Your task to perform on an android device: Open Reddit.com Image 0: 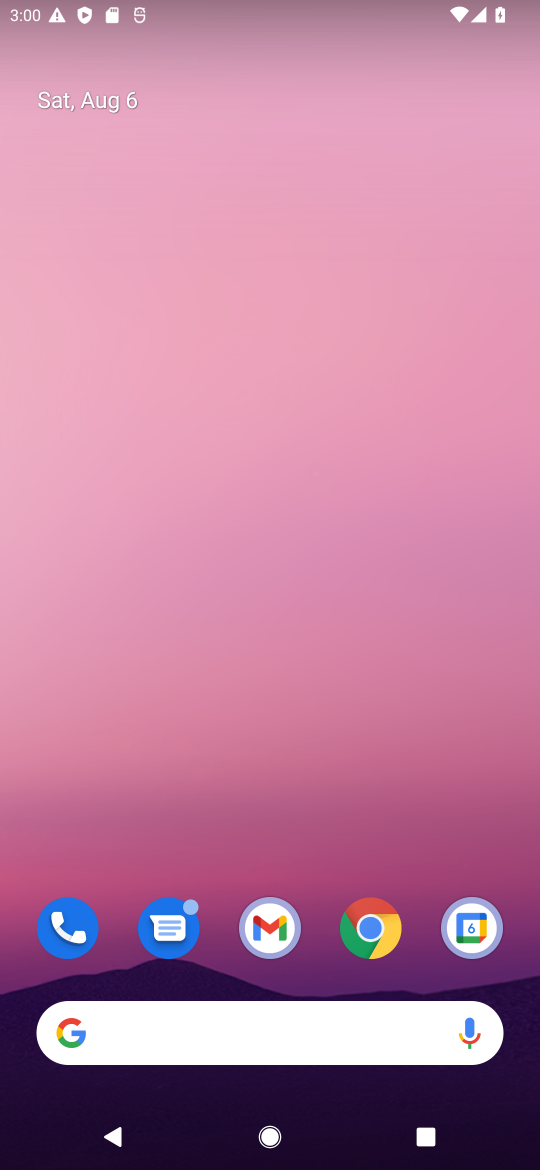
Step 0: click (364, 929)
Your task to perform on an android device: Open Reddit.com Image 1: 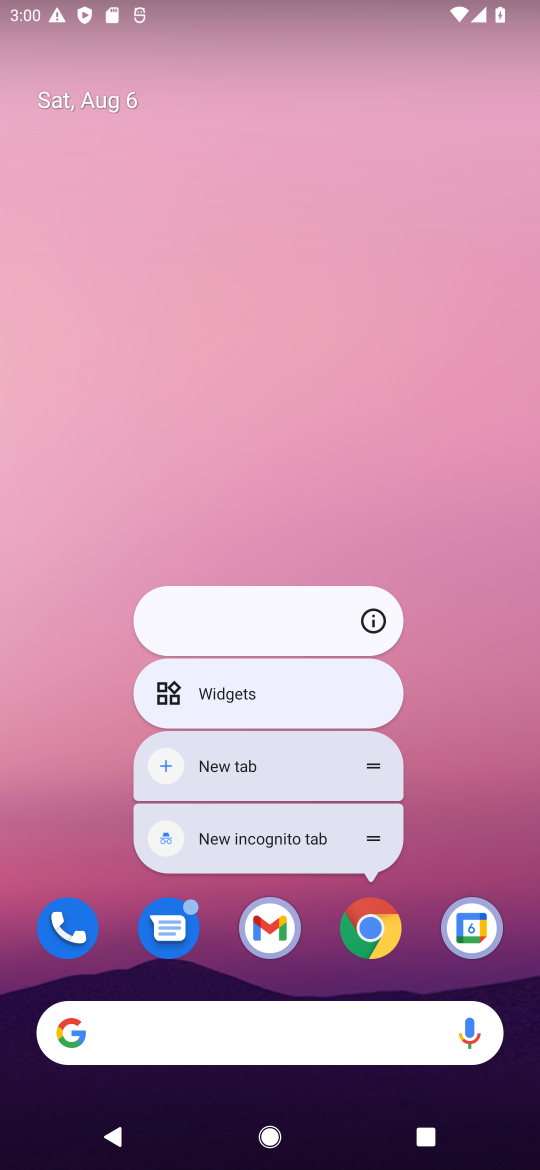
Step 1: click (357, 924)
Your task to perform on an android device: Open Reddit.com Image 2: 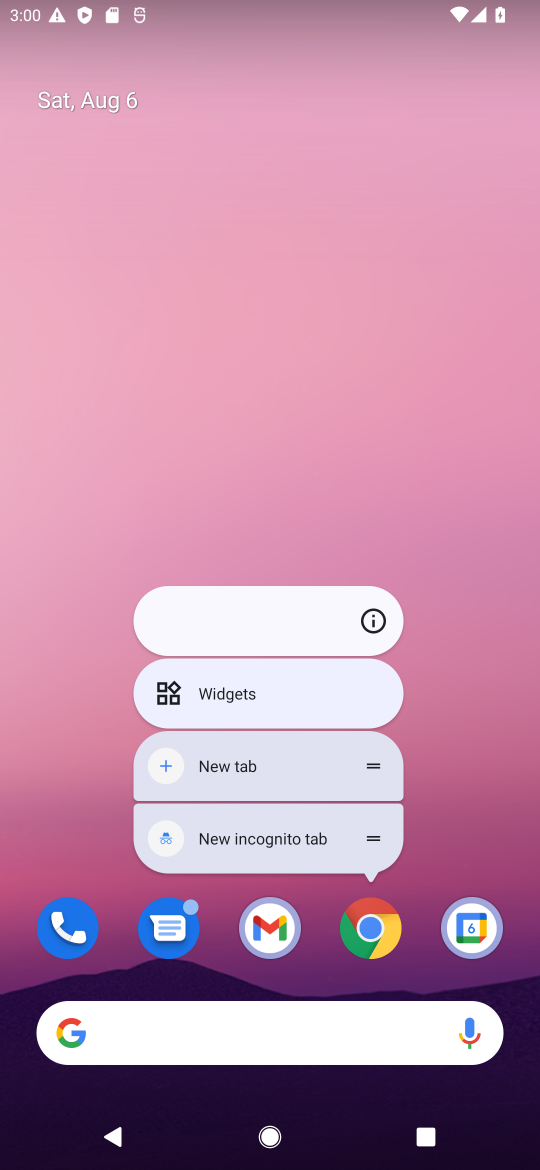
Step 2: click (357, 927)
Your task to perform on an android device: Open Reddit.com Image 3: 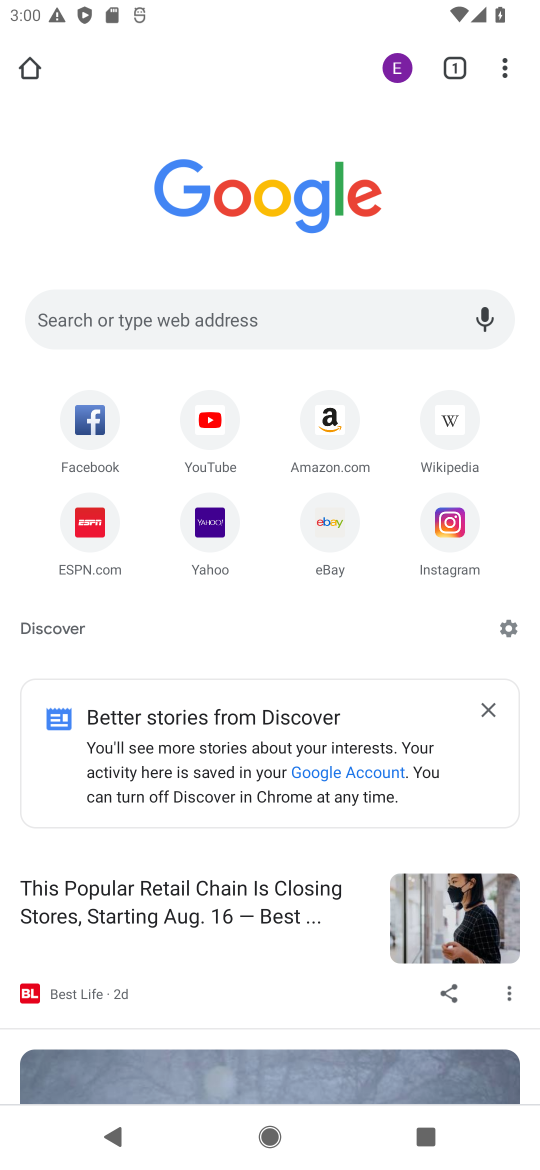
Step 3: click (383, 318)
Your task to perform on an android device: Open Reddit.com Image 4: 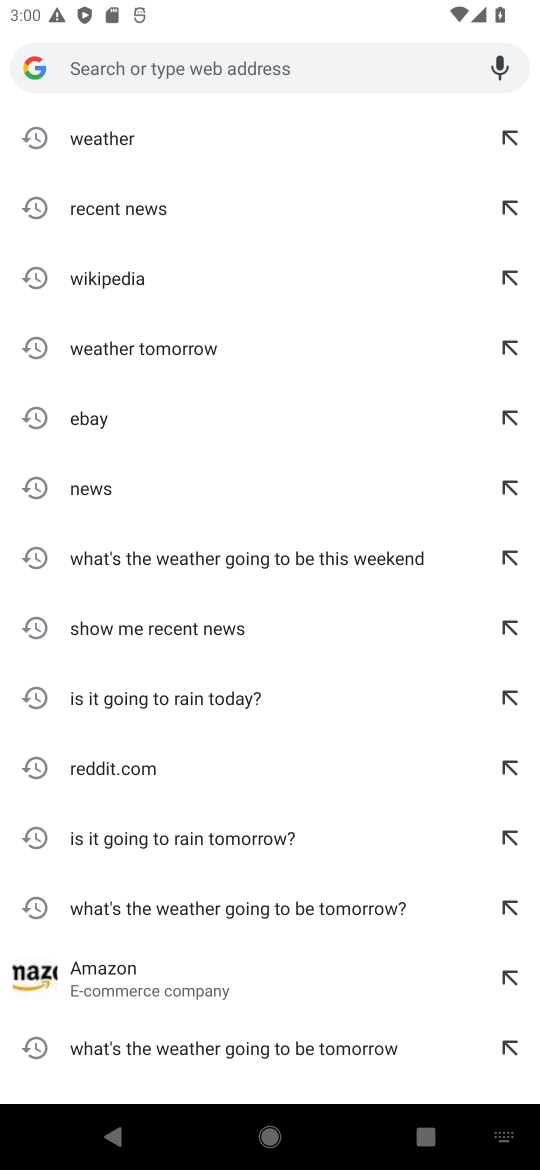
Step 4: type "reddit.com"
Your task to perform on an android device: Open Reddit.com Image 5: 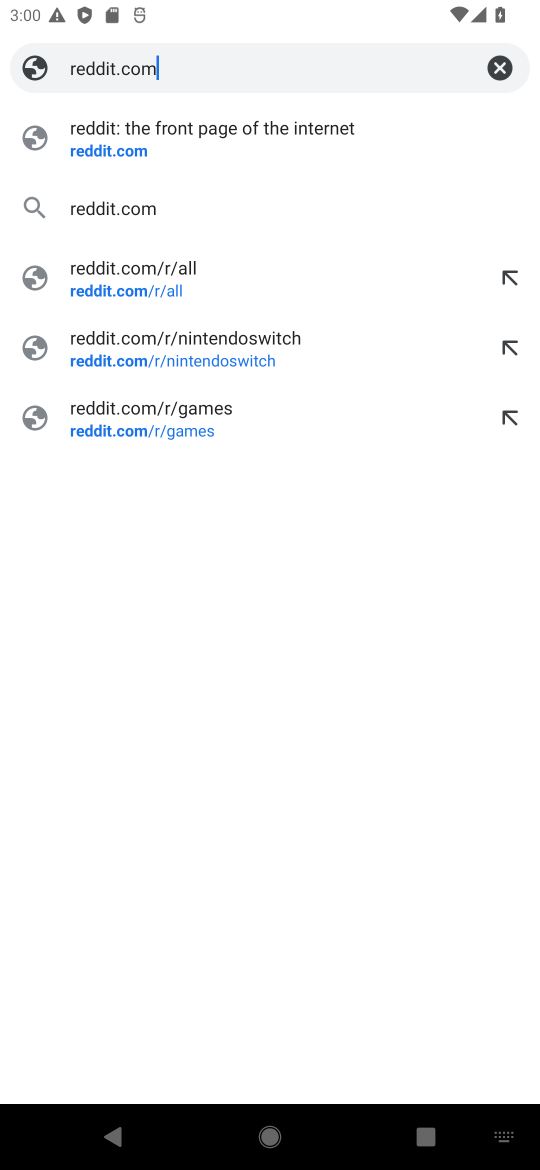
Step 5: click (366, 145)
Your task to perform on an android device: Open Reddit.com Image 6: 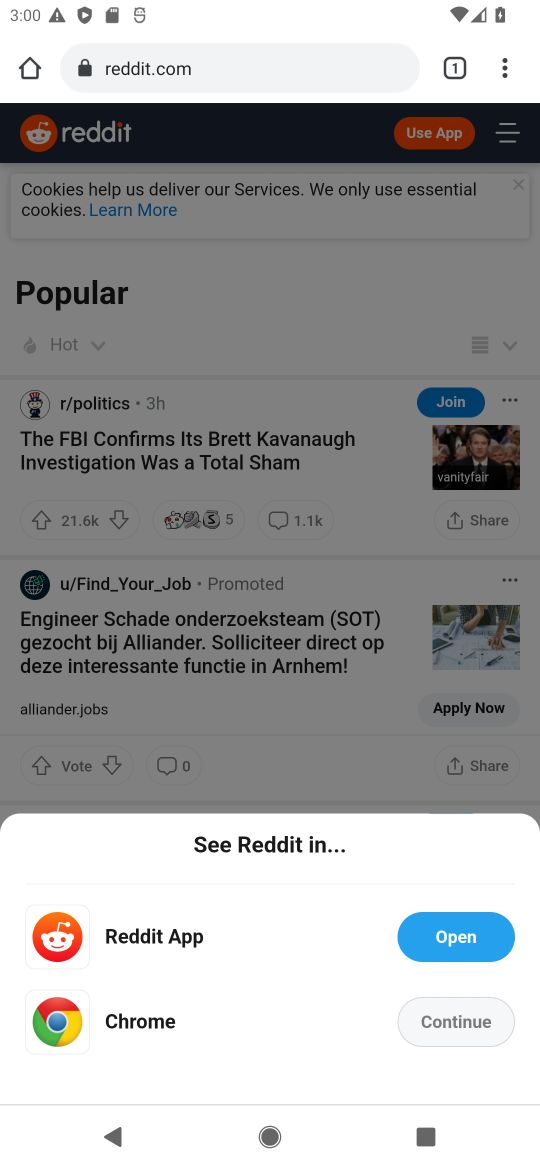
Step 6: task complete